Your task to perform on an android device: Open Google Maps and go to "Timeline" Image 0: 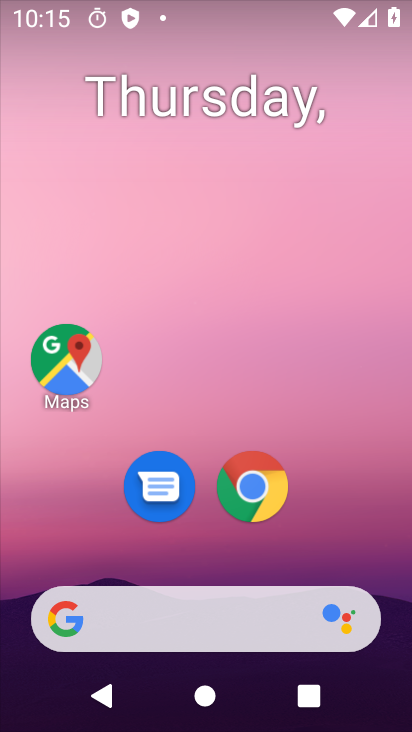
Step 0: click (45, 361)
Your task to perform on an android device: Open Google Maps and go to "Timeline" Image 1: 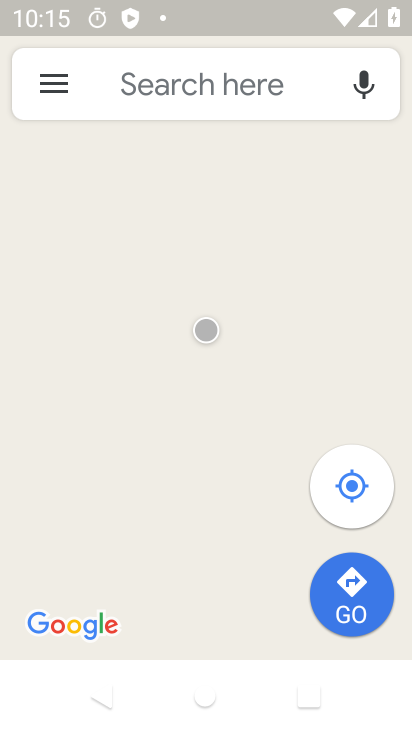
Step 1: click (48, 76)
Your task to perform on an android device: Open Google Maps and go to "Timeline" Image 2: 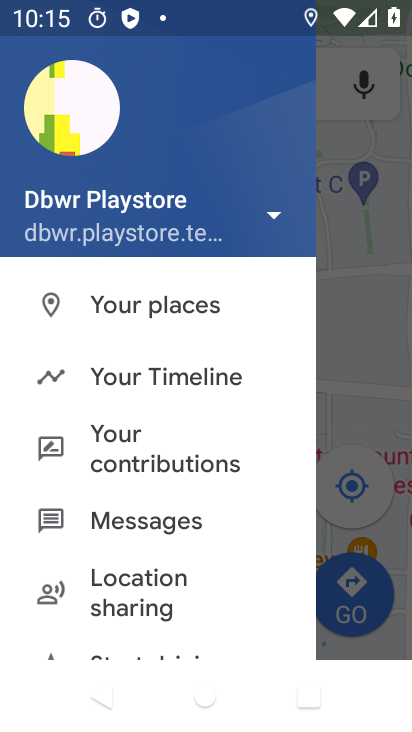
Step 2: click (112, 368)
Your task to perform on an android device: Open Google Maps and go to "Timeline" Image 3: 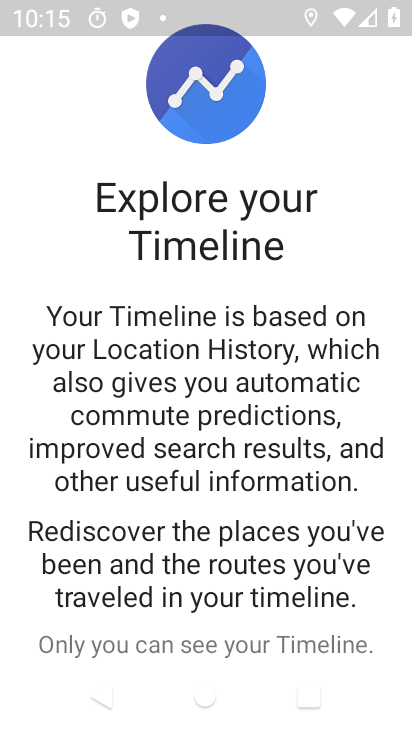
Step 3: drag from (300, 436) to (297, 315)
Your task to perform on an android device: Open Google Maps and go to "Timeline" Image 4: 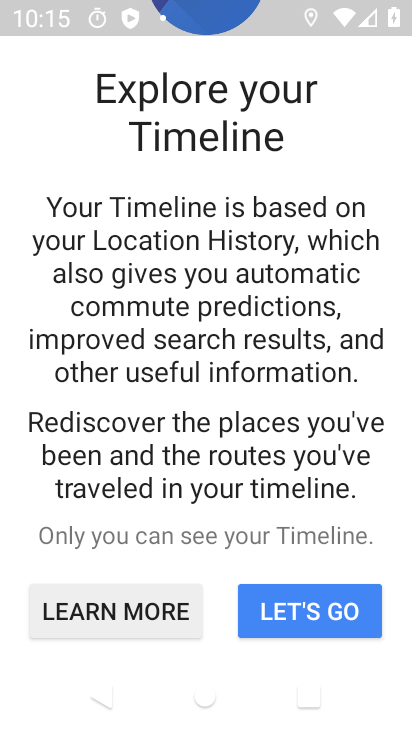
Step 4: click (305, 607)
Your task to perform on an android device: Open Google Maps and go to "Timeline" Image 5: 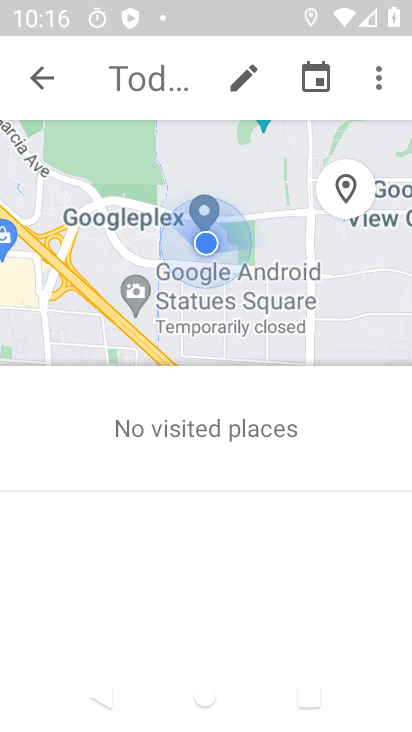
Step 5: task complete